Your task to perform on an android device: Open network settings Image 0: 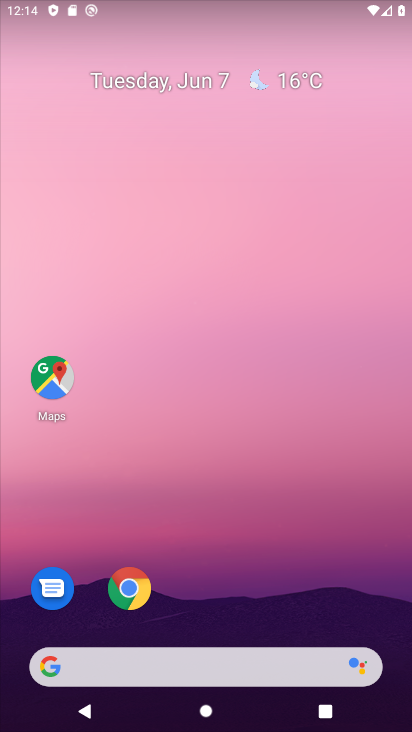
Step 0: drag from (285, 593) to (152, 81)
Your task to perform on an android device: Open network settings Image 1: 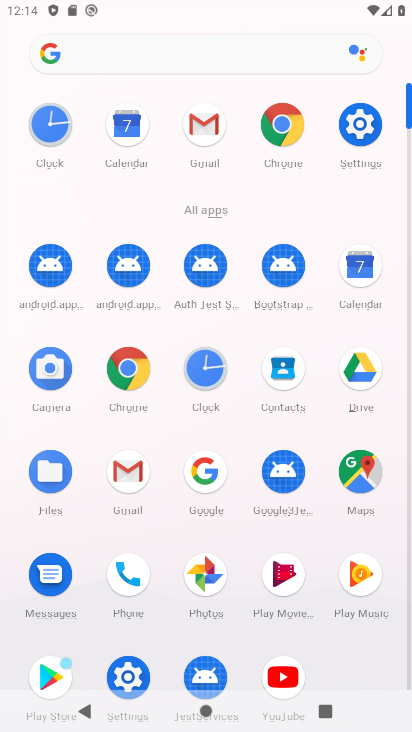
Step 1: click (355, 148)
Your task to perform on an android device: Open network settings Image 2: 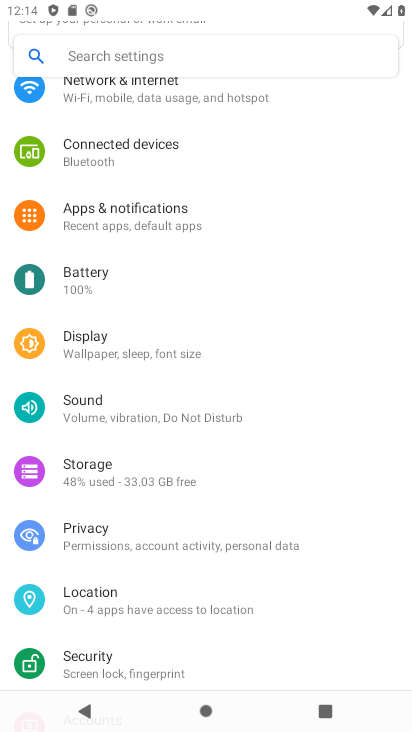
Step 2: click (192, 119)
Your task to perform on an android device: Open network settings Image 3: 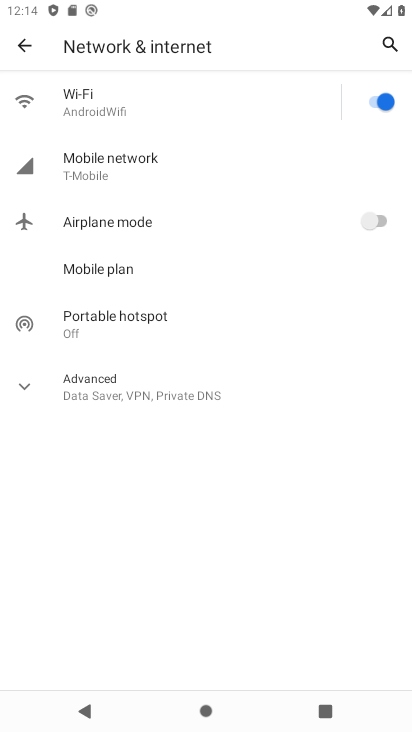
Step 3: task complete